Your task to perform on an android device: Go to Reddit.com Image 0: 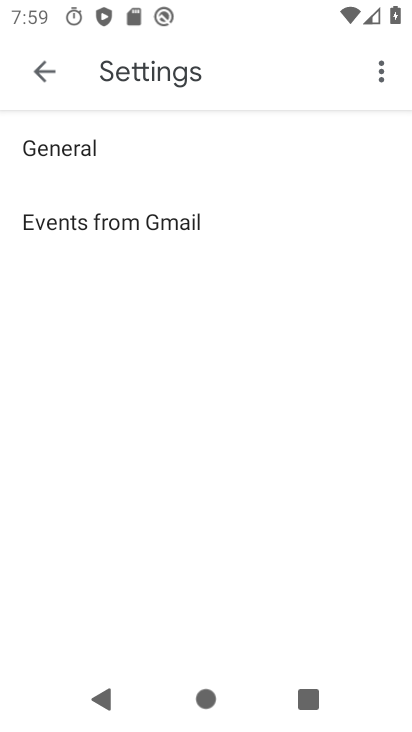
Step 0: press home button
Your task to perform on an android device: Go to Reddit.com Image 1: 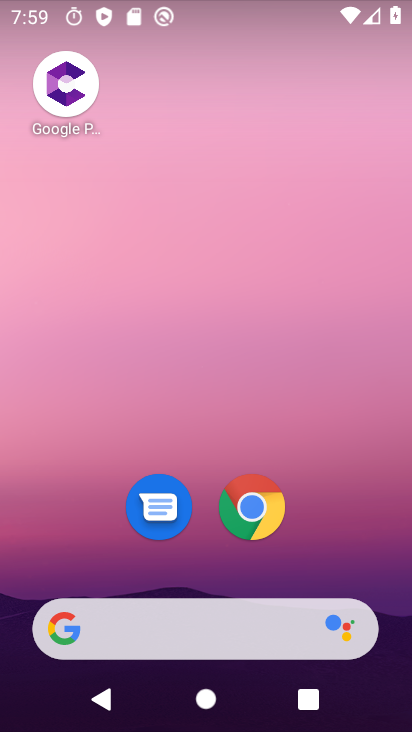
Step 1: click (262, 496)
Your task to perform on an android device: Go to Reddit.com Image 2: 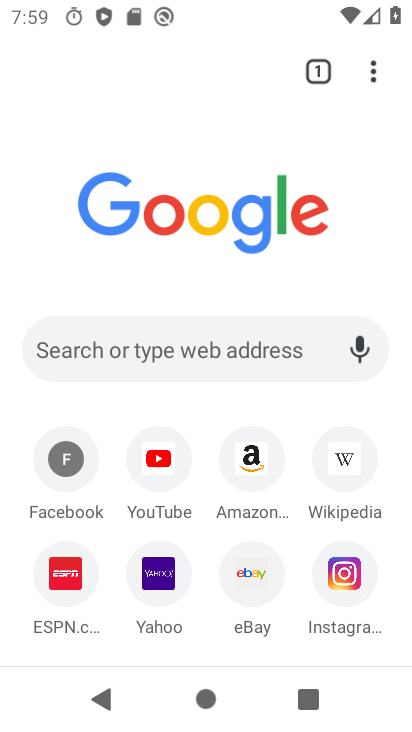
Step 2: click (179, 347)
Your task to perform on an android device: Go to Reddit.com Image 3: 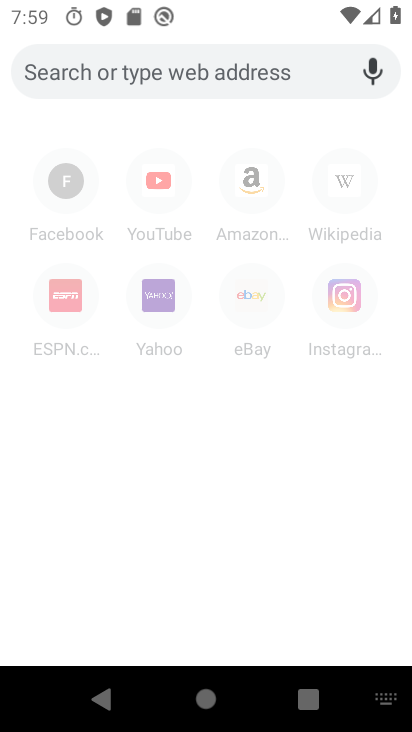
Step 3: type "reddit"
Your task to perform on an android device: Go to Reddit.com Image 4: 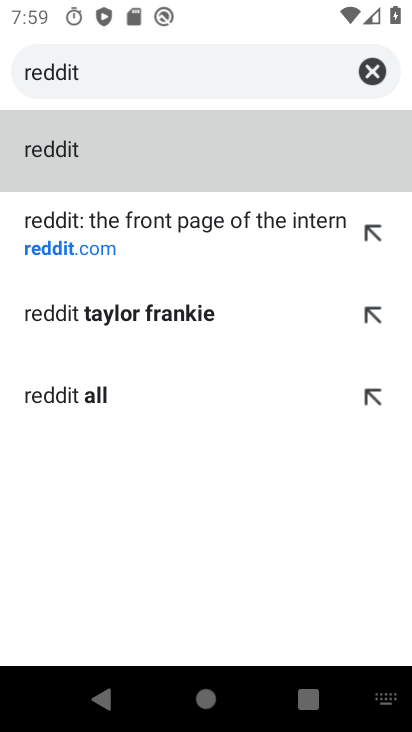
Step 4: click (151, 241)
Your task to perform on an android device: Go to Reddit.com Image 5: 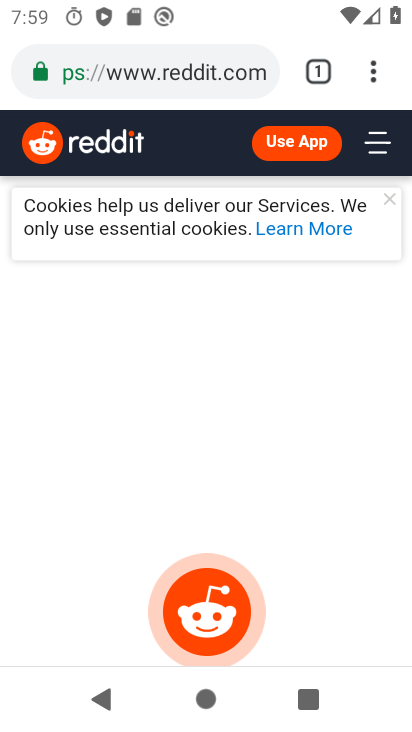
Step 5: task complete